Your task to perform on an android device: Open Google Chrome and click the shortcut for Amazon.com Image 0: 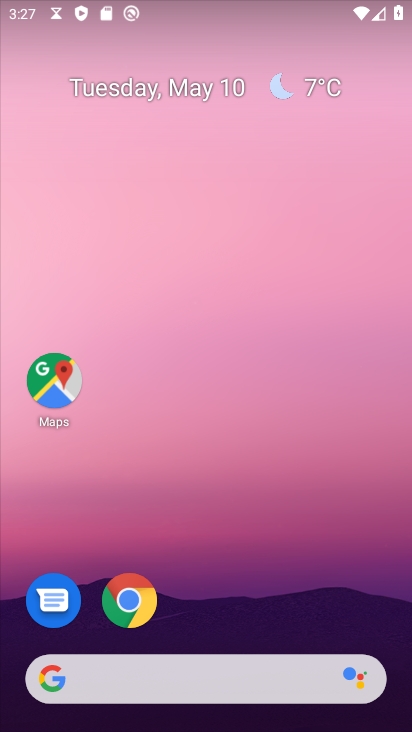
Step 0: click (123, 595)
Your task to perform on an android device: Open Google Chrome and click the shortcut for Amazon.com Image 1: 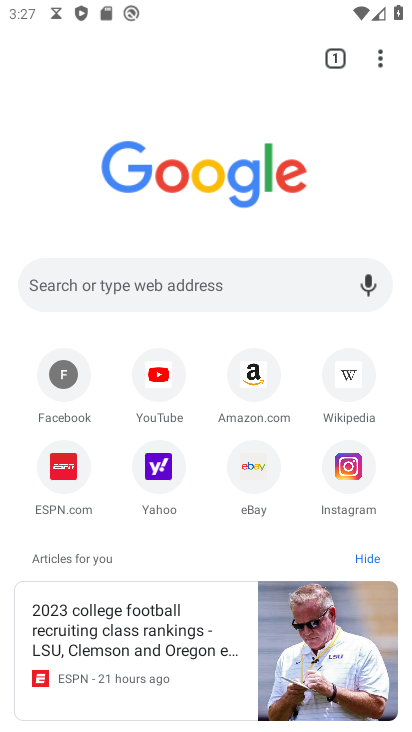
Step 1: click (265, 374)
Your task to perform on an android device: Open Google Chrome and click the shortcut for Amazon.com Image 2: 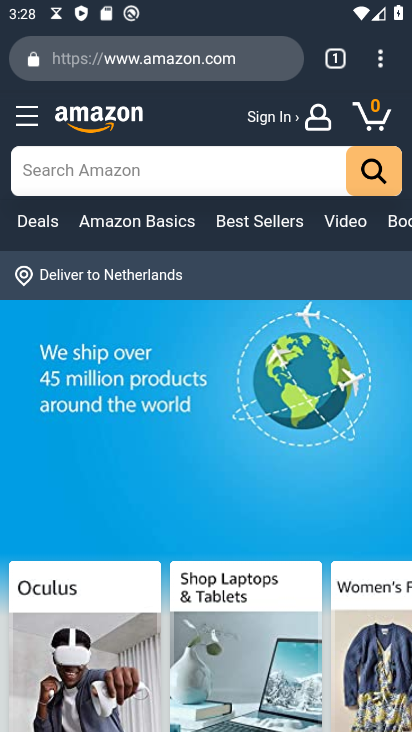
Step 2: task complete